Your task to perform on an android device: Open Wikipedia Image 0: 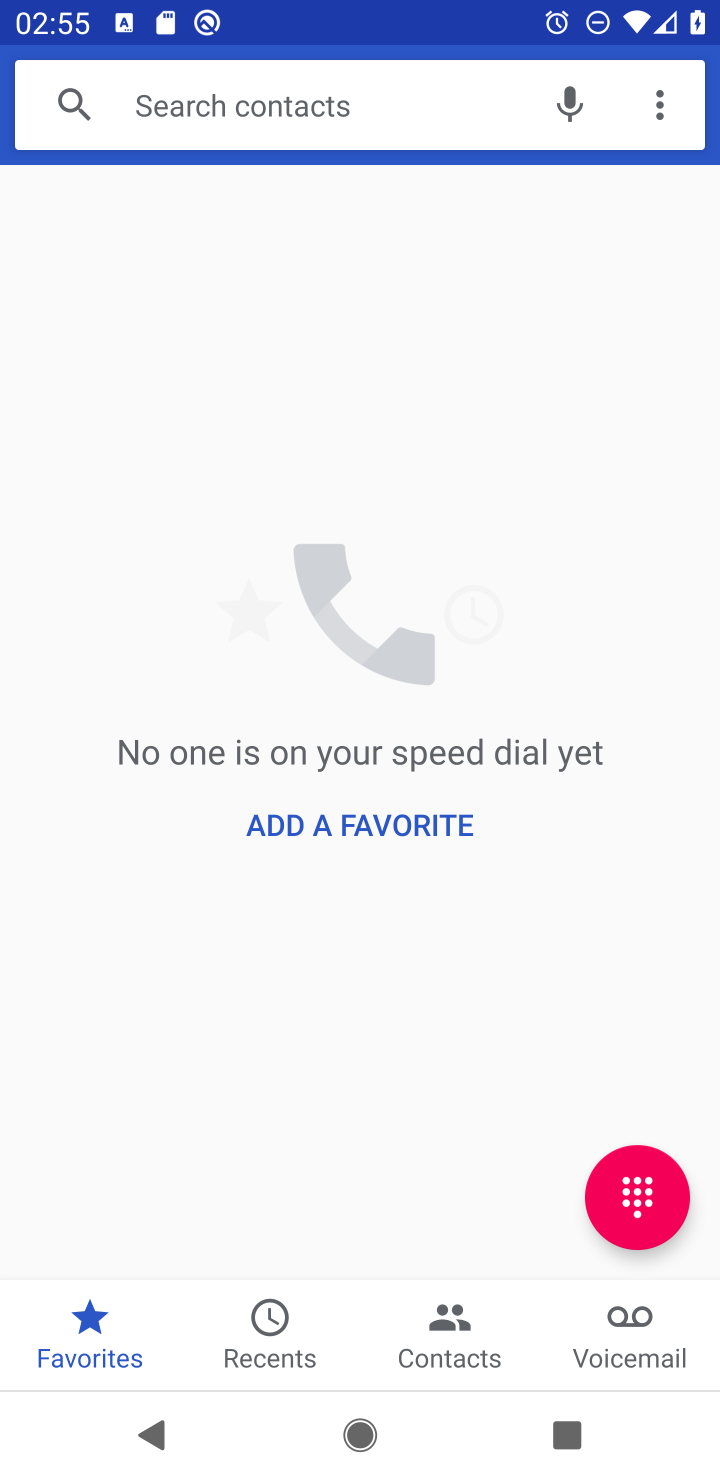
Step 0: press home button
Your task to perform on an android device: Open Wikipedia Image 1: 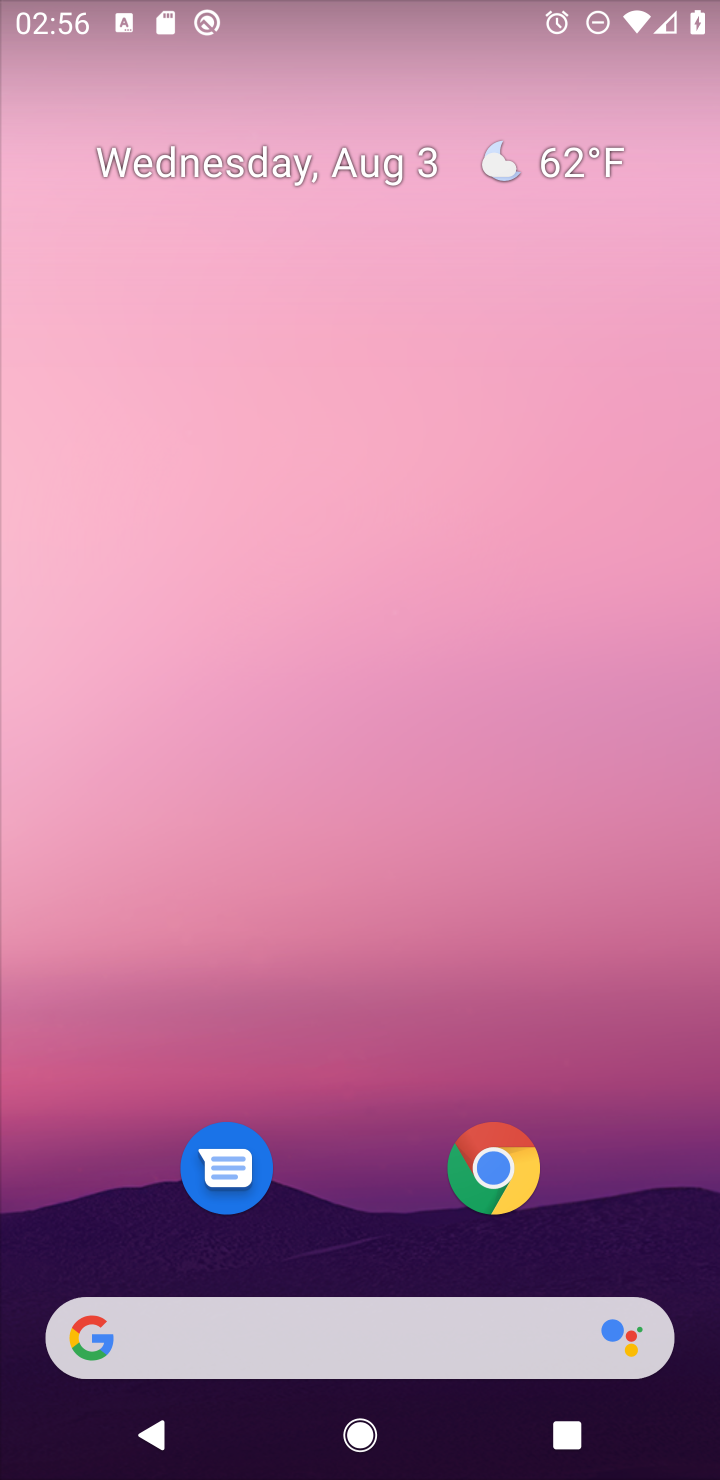
Step 1: click (496, 1168)
Your task to perform on an android device: Open Wikipedia Image 2: 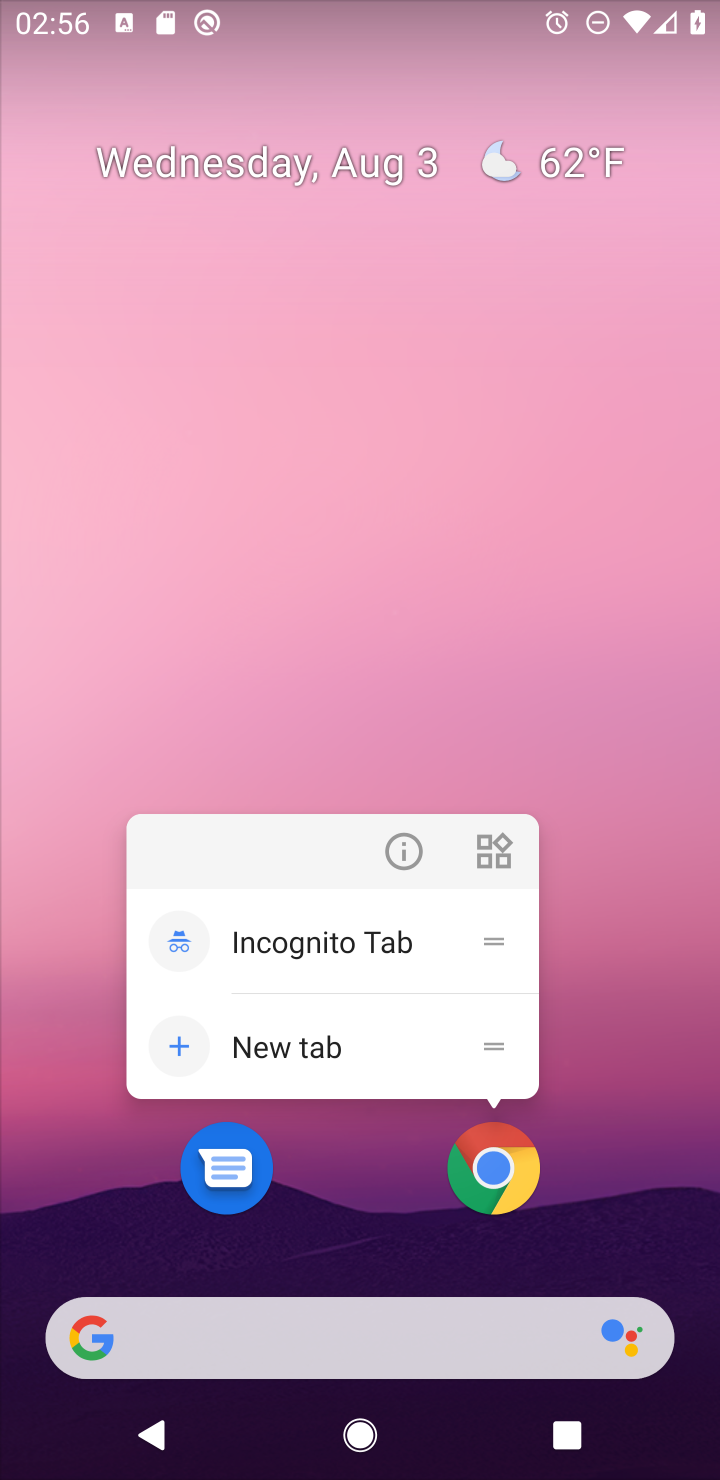
Step 2: click (491, 1171)
Your task to perform on an android device: Open Wikipedia Image 3: 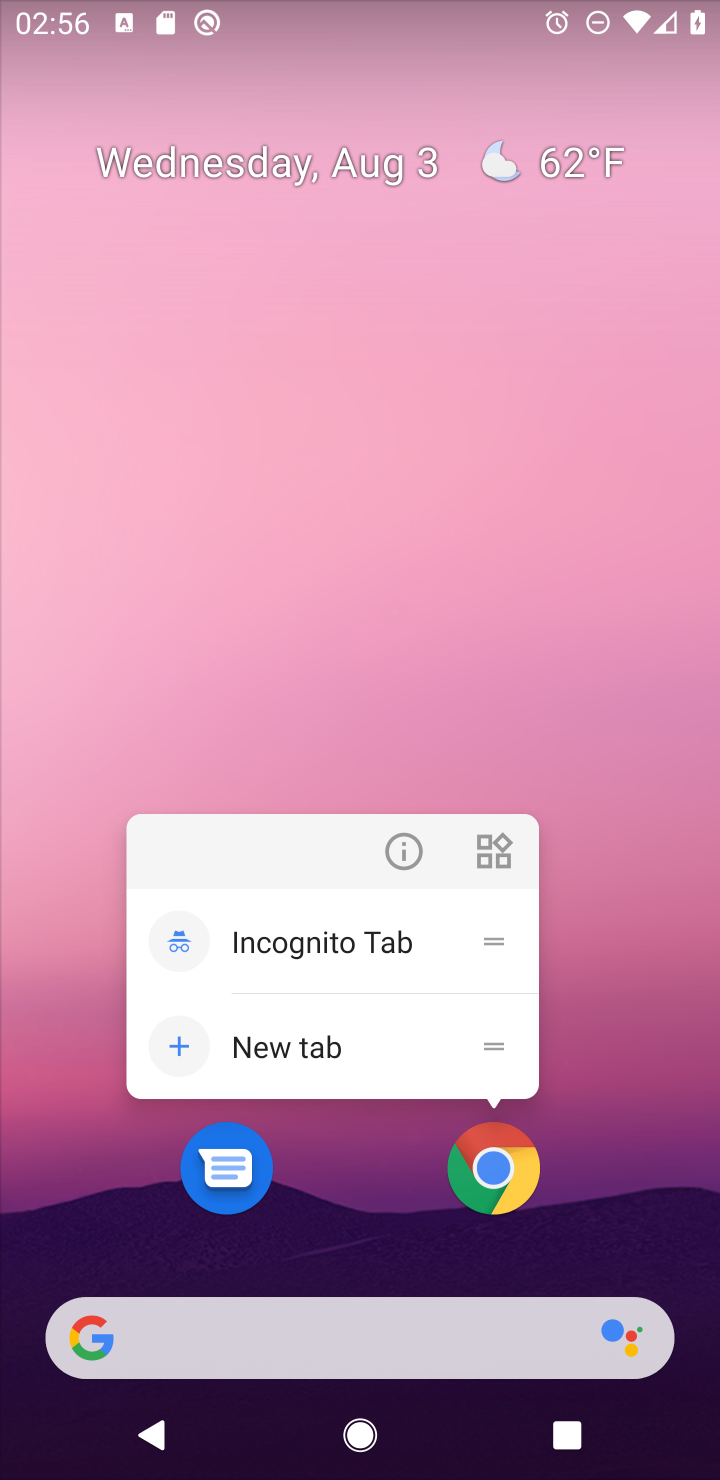
Step 3: click (491, 1172)
Your task to perform on an android device: Open Wikipedia Image 4: 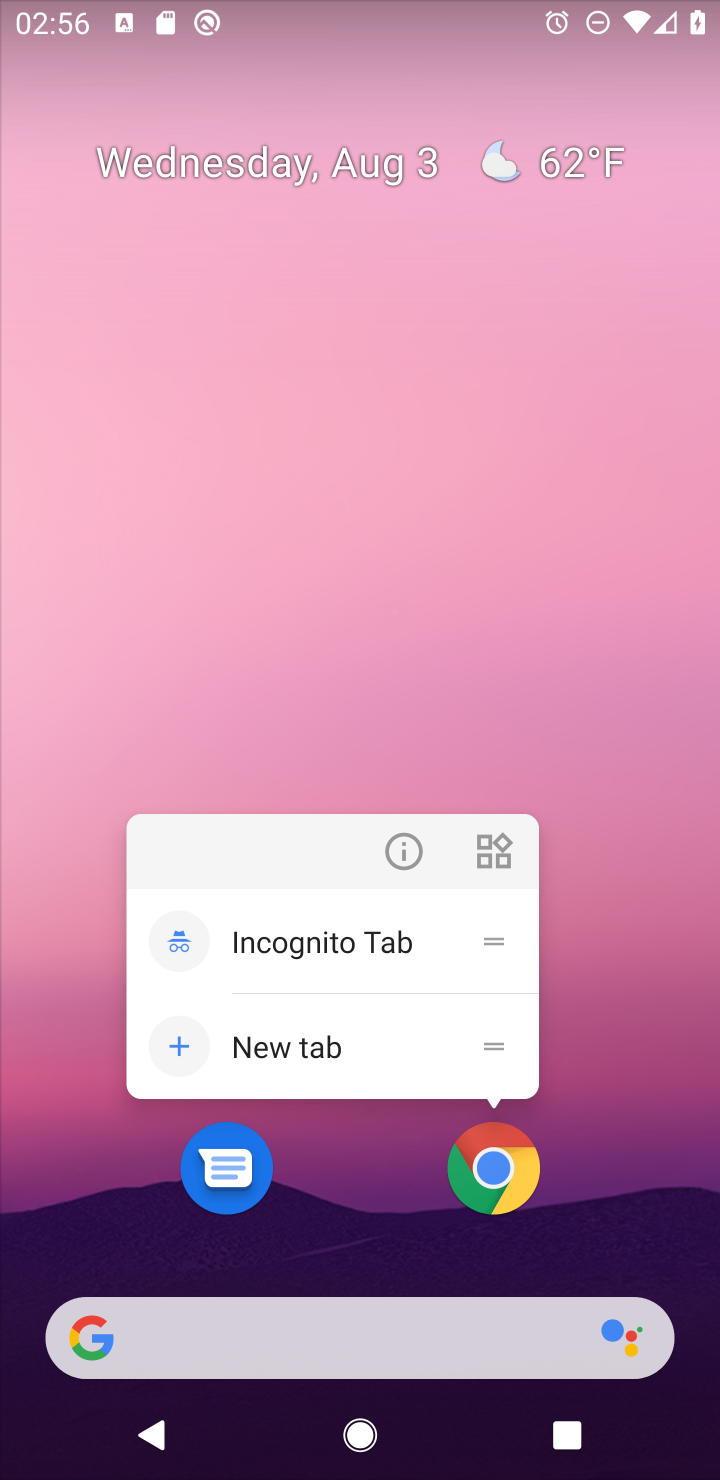
Step 4: click (493, 1170)
Your task to perform on an android device: Open Wikipedia Image 5: 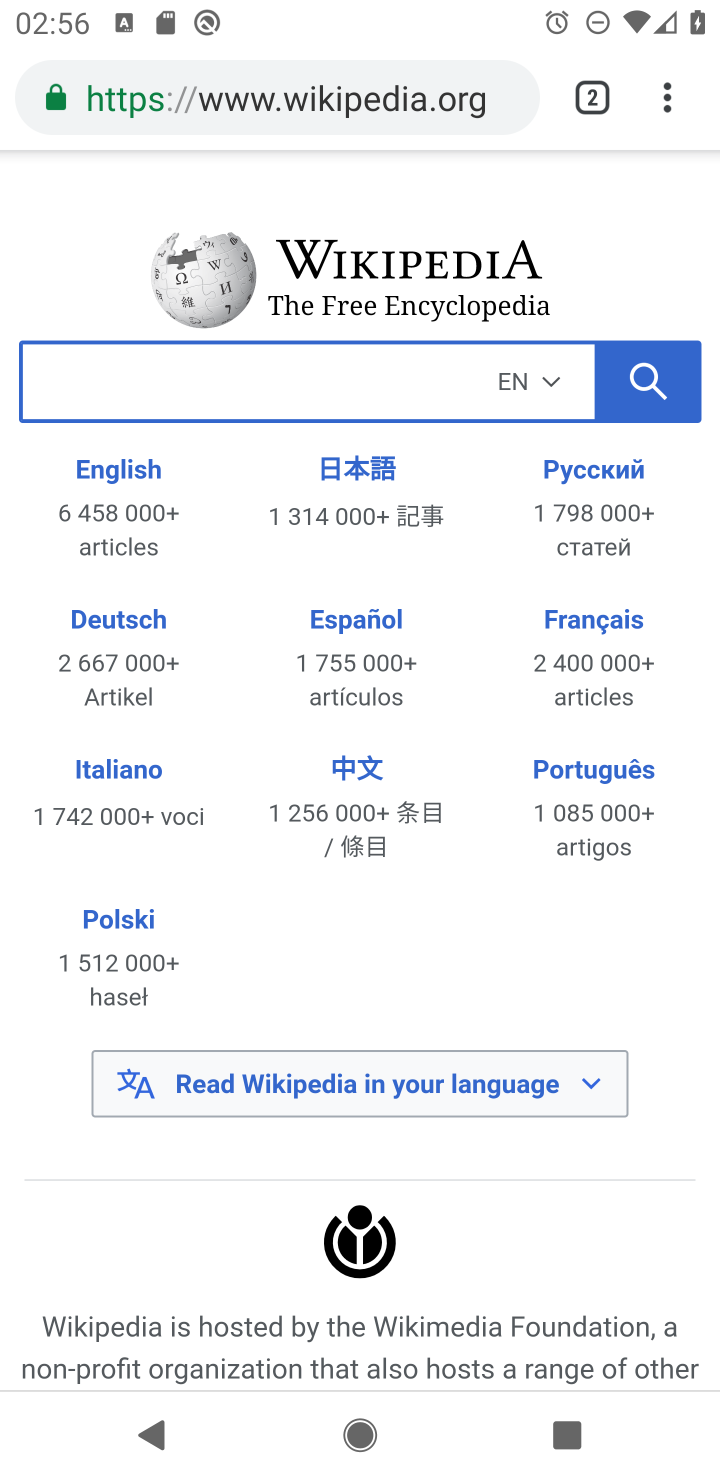
Step 5: task complete